Your task to perform on an android device: Go to Google maps Image 0: 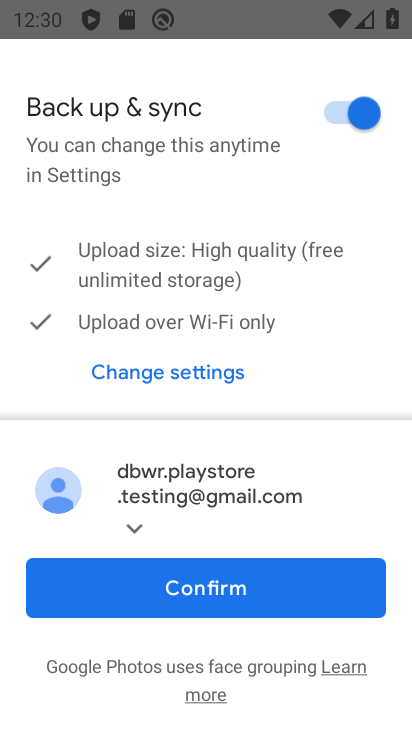
Step 0: press home button
Your task to perform on an android device: Go to Google maps Image 1: 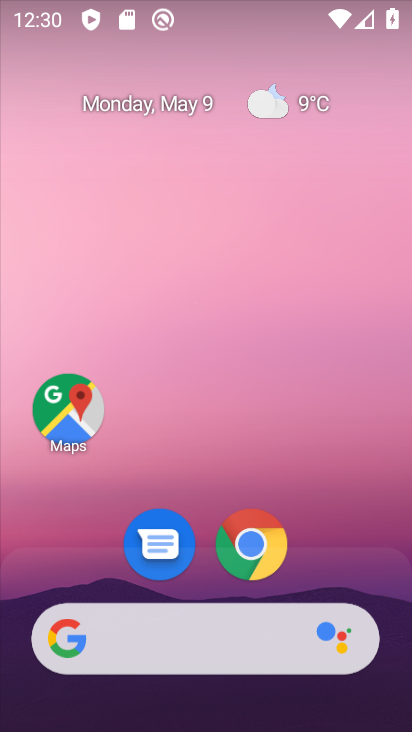
Step 1: click (66, 394)
Your task to perform on an android device: Go to Google maps Image 2: 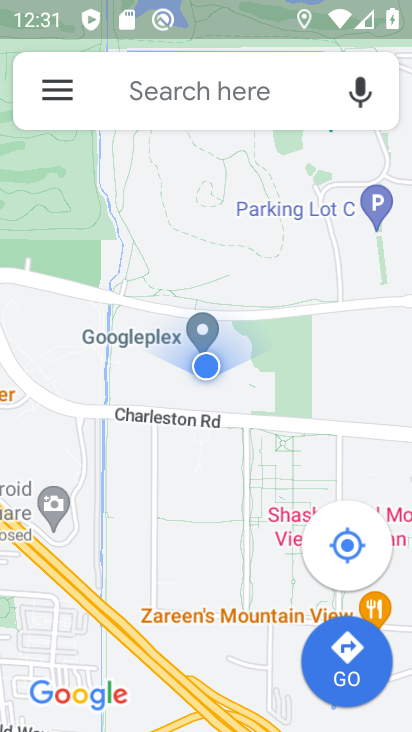
Step 2: task complete